Your task to perform on an android device: Open notification settings Image 0: 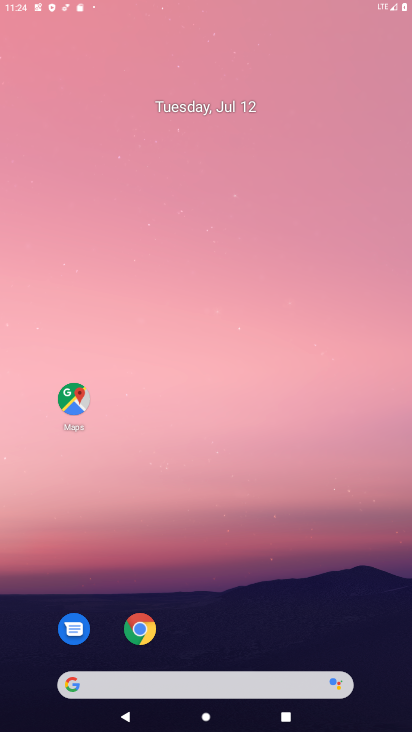
Step 0: press home button
Your task to perform on an android device: Open notification settings Image 1: 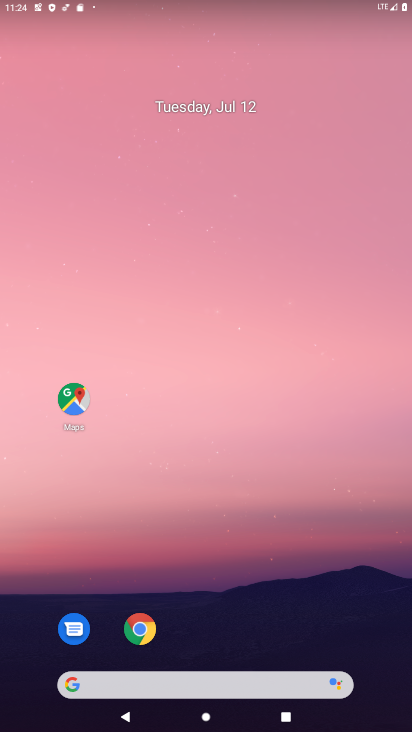
Step 1: drag from (205, 647) to (238, 24)
Your task to perform on an android device: Open notification settings Image 2: 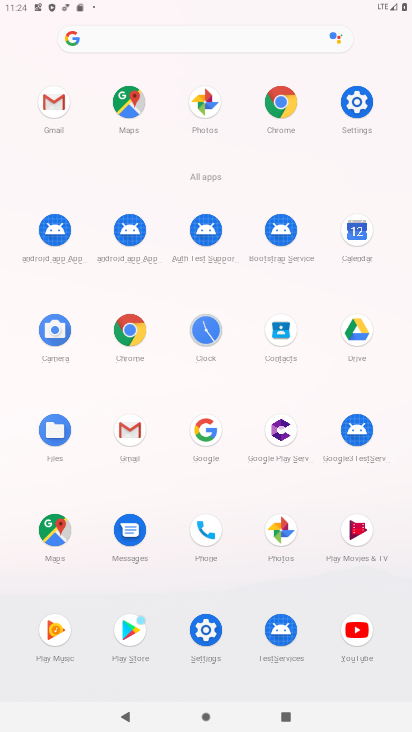
Step 2: click (356, 95)
Your task to perform on an android device: Open notification settings Image 3: 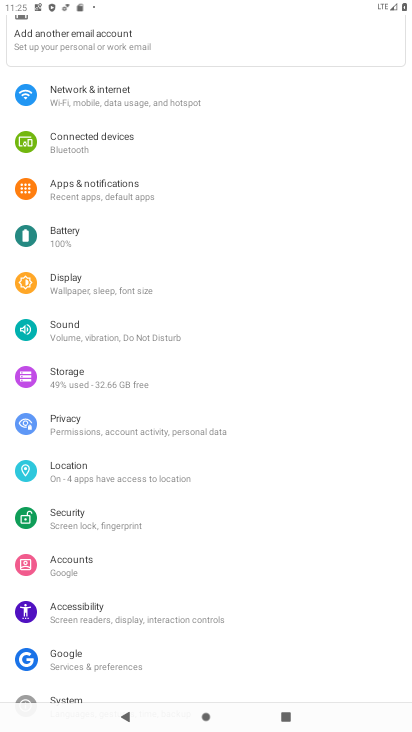
Step 3: click (155, 181)
Your task to perform on an android device: Open notification settings Image 4: 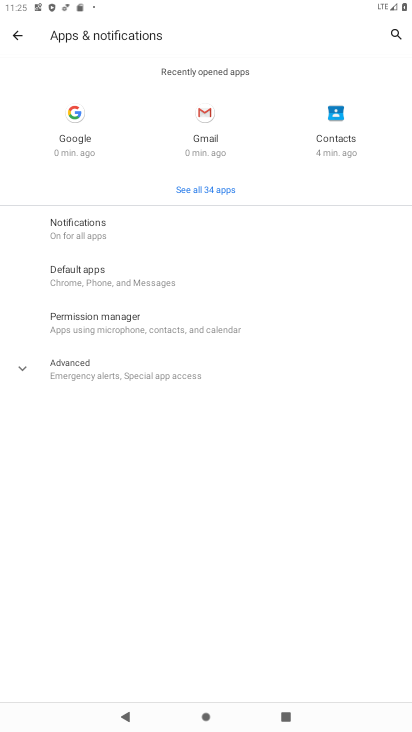
Step 4: click (119, 221)
Your task to perform on an android device: Open notification settings Image 5: 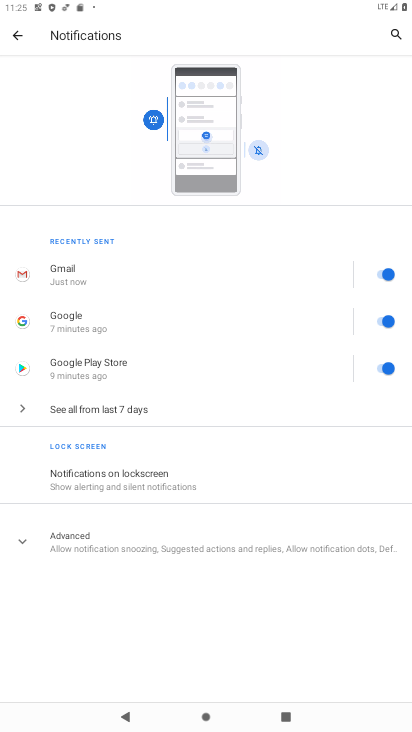
Step 5: click (24, 542)
Your task to perform on an android device: Open notification settings Image 6: 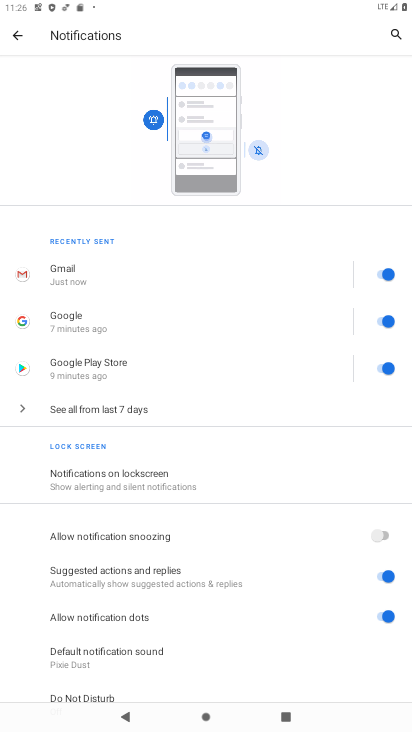
Step 6: task complete